Your task to perform on an android device: Search for seafood restaurants on Google Maps Image 0: 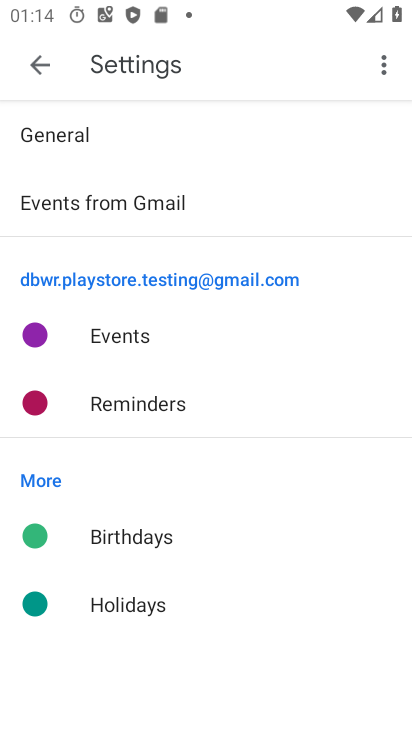
Step 0: press home button
Your task to perform on an android device: Search for seafood restaurants on Google Maps Image 1: 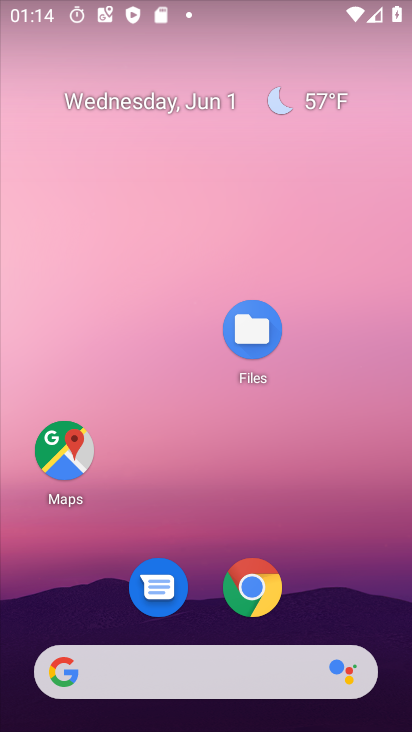
Step 1: click (47, 448)
Your task to perform on an android device: Search for seafood restaurants on Google Maps Image 2: 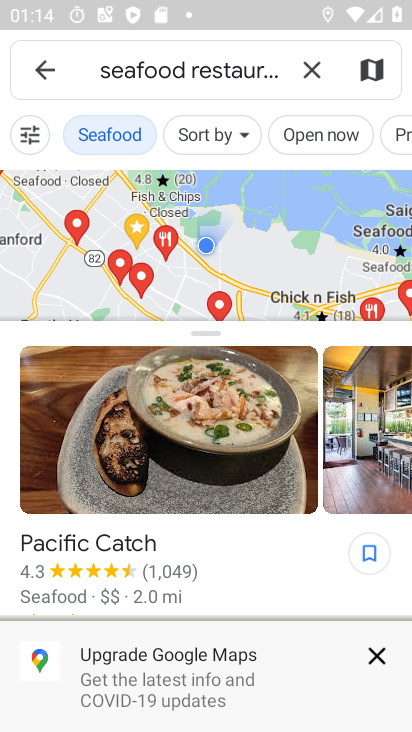
Step 2: task complete